Your task to perform on an android device: set the stopwatch Image 0: 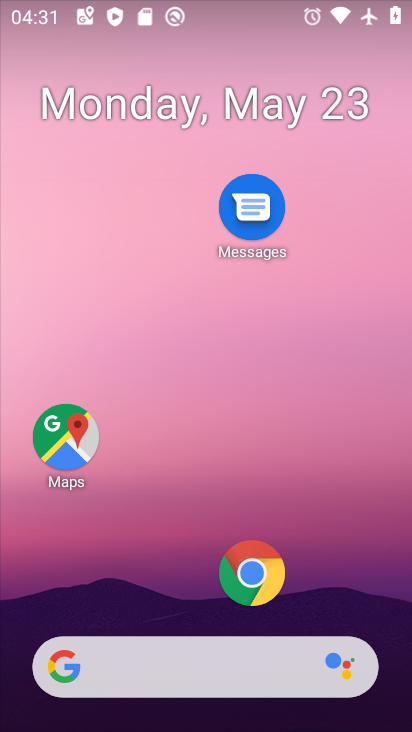
Step 0: drag from (337, 673) to (332, 47)
Your task to perform on an android device: set the stopwatch Image 1: 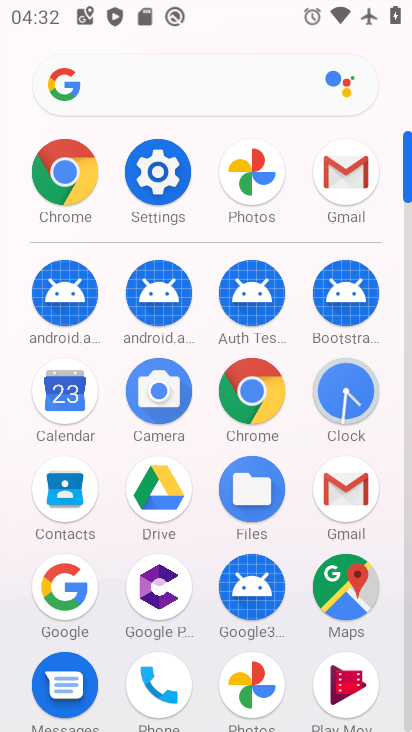
Step 1: click (331, 396)
Your task to perform on an android device: set the stopwatch Image 2: 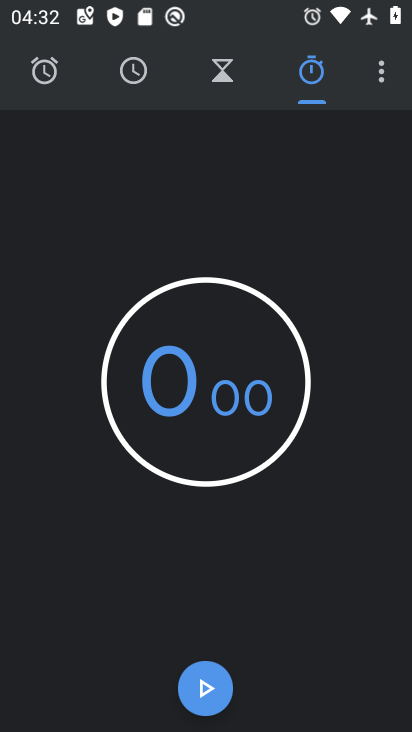
Step 2: click (220, 683)
Your task to perform on an android device: set the stopwatch Image 3: 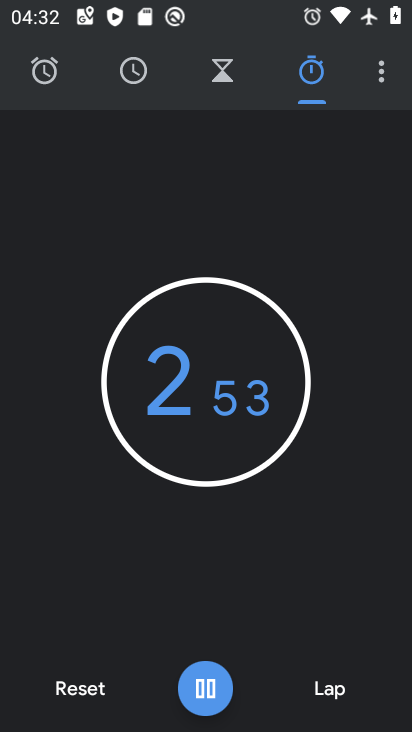
Step 3: task complete